Your task to perform on an android device: add a label to a message in the gmail app Image 0: 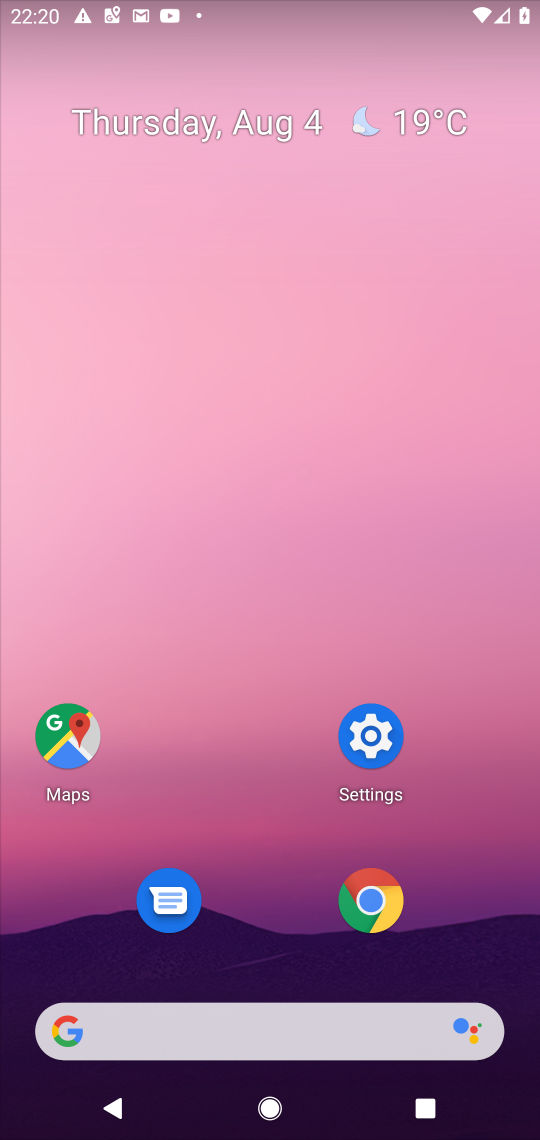
Step 0: press home button
Your task to perform on an android device: add a label to a message in the gmail app Image 1: 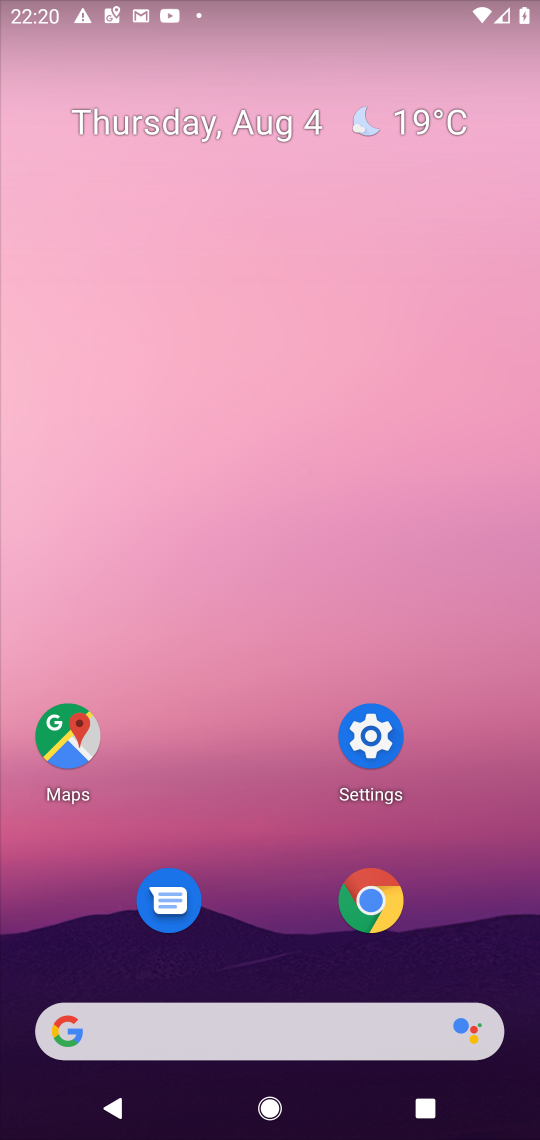
Step 1: drag from (329, 791) to (461, 73)
Your task to perform on an android device: add a label to a message in the gmail app Image 2: 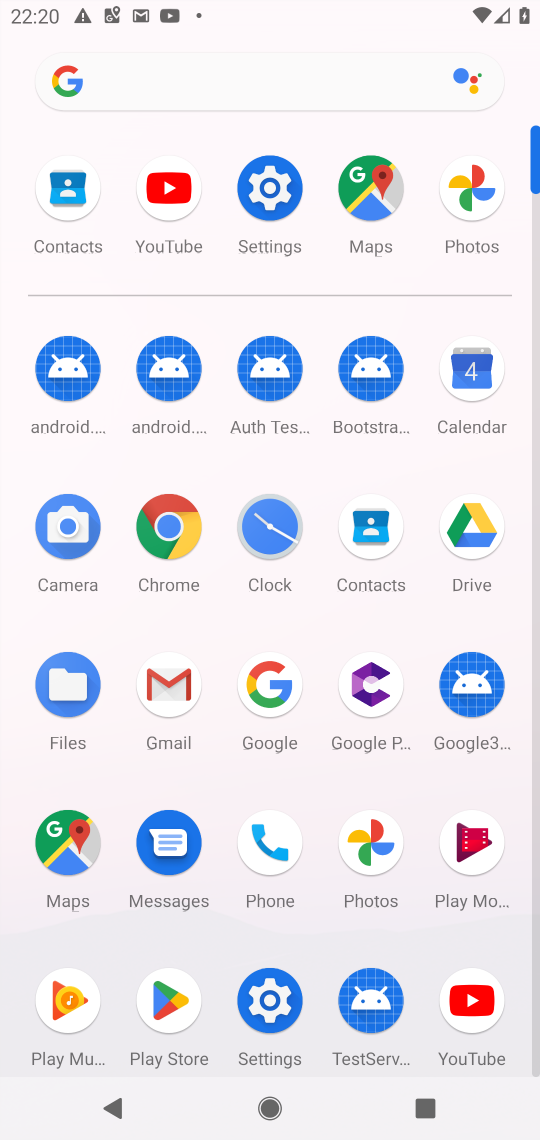
Step 2: click (177, 687)
Your task to perform on an android device: add a label to a message in the gmail app Image 3: 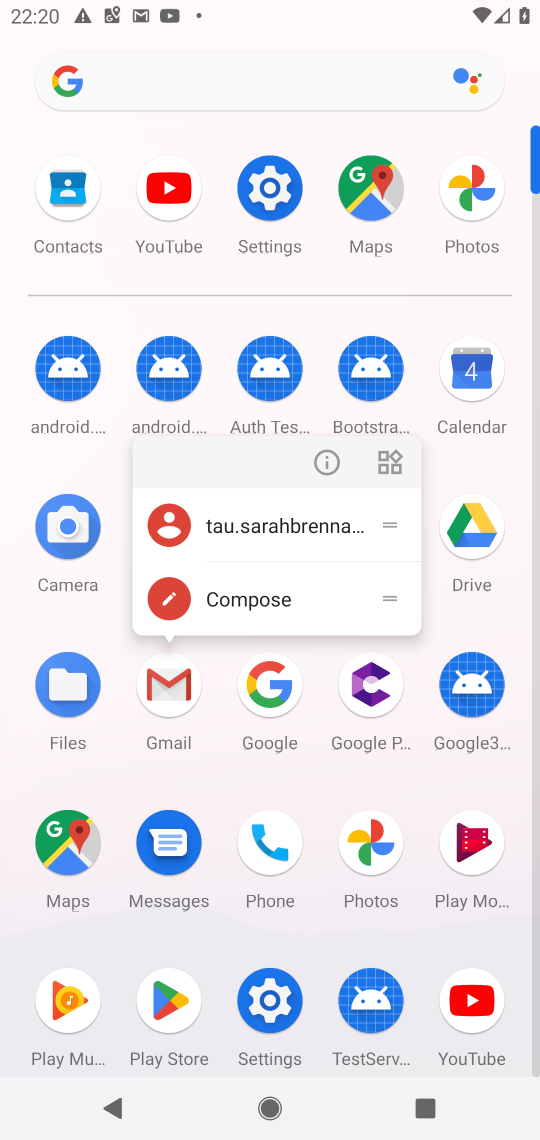
Step 3: click (177, 685)
Your task to perform on an android device: add a label to a message in the gmail app Image 4: 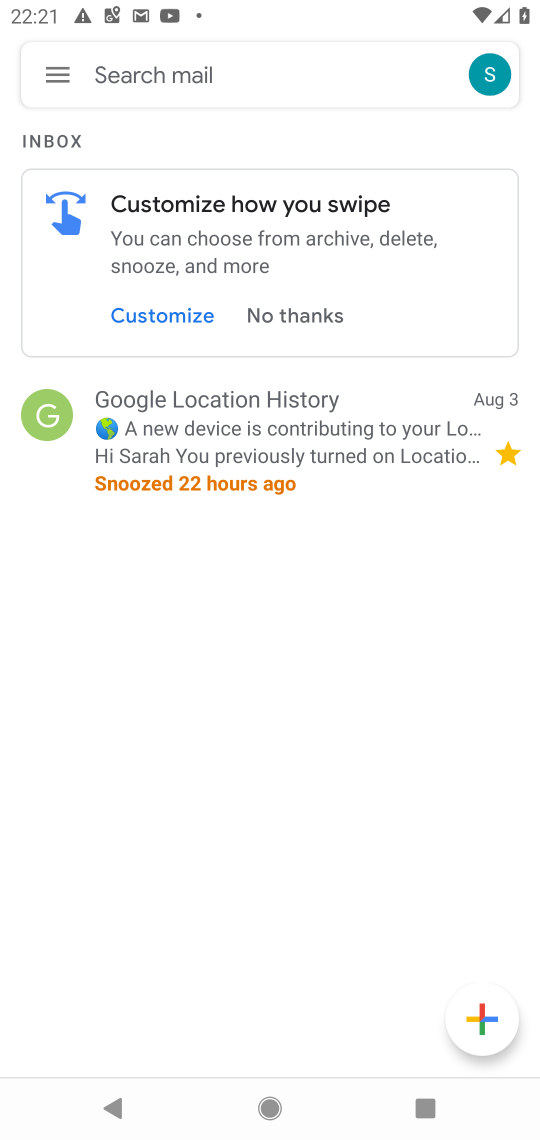
Step 4: click (237, 421)
Your task to perform on an android device: add a label to a message in the gmail app Image 5: 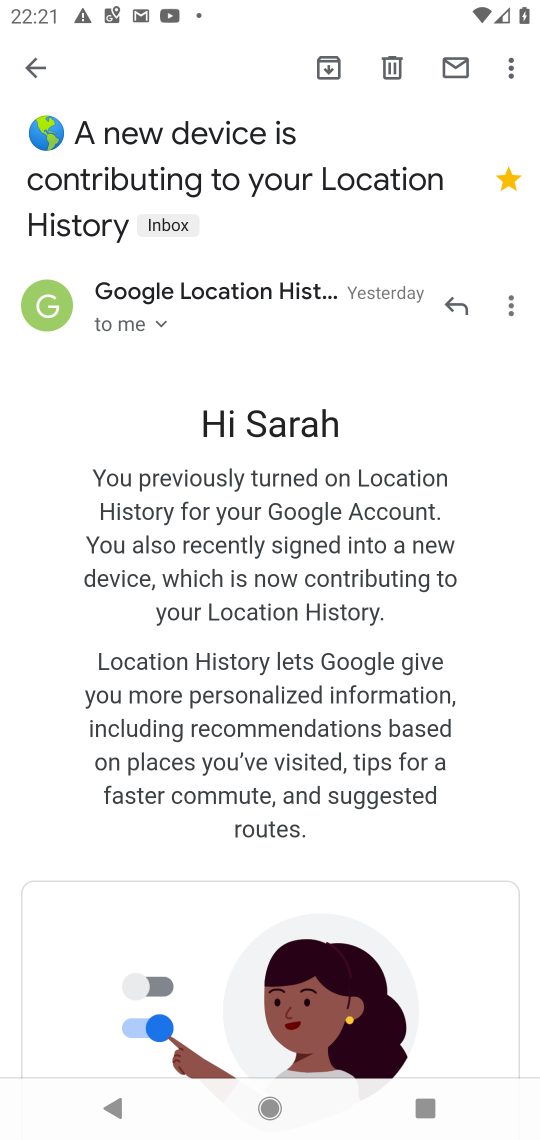
Step 5: click (172, 220)
Your task to perform on an android device: add a label to a message in the gmail app Image 6: 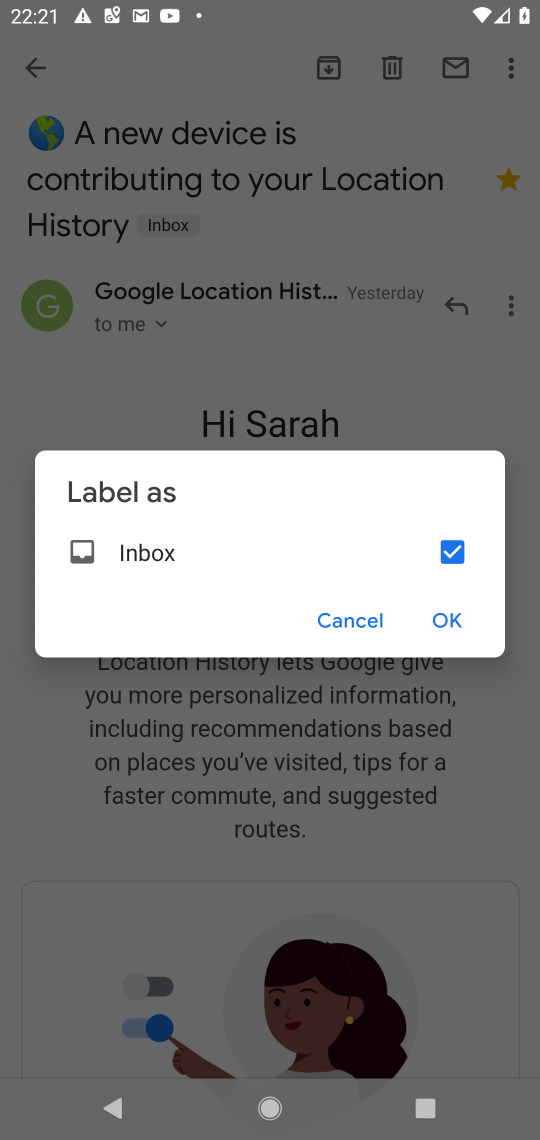
Step 6: click (465, 552)
Your task to perform on an android device: add a label to a message in the gmail app Image 7: 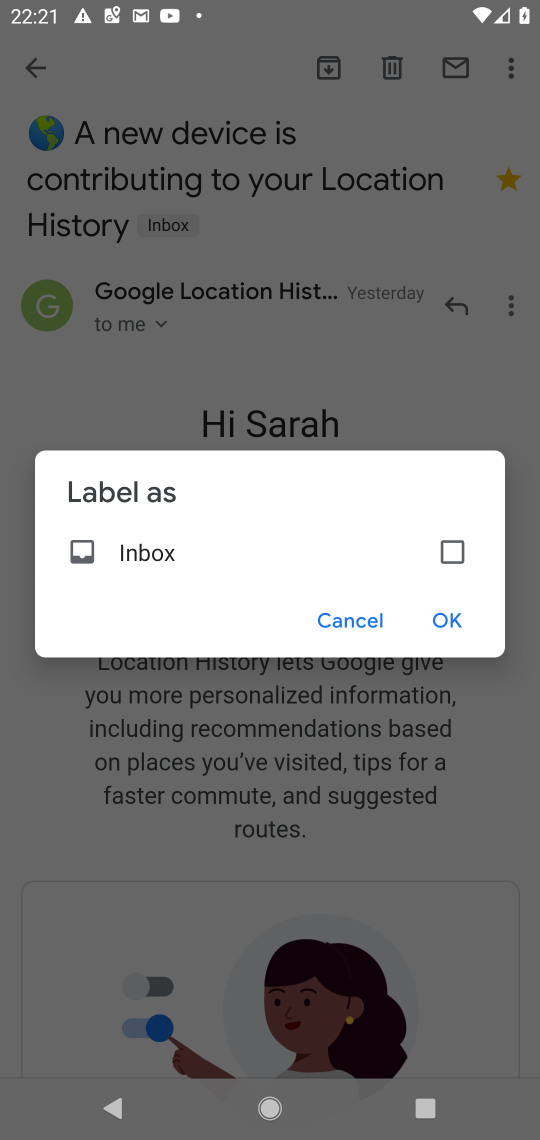
Step 7: click (443, 623)
Your task to perform on an android device: add a label to a message in the gmail app Image 8: 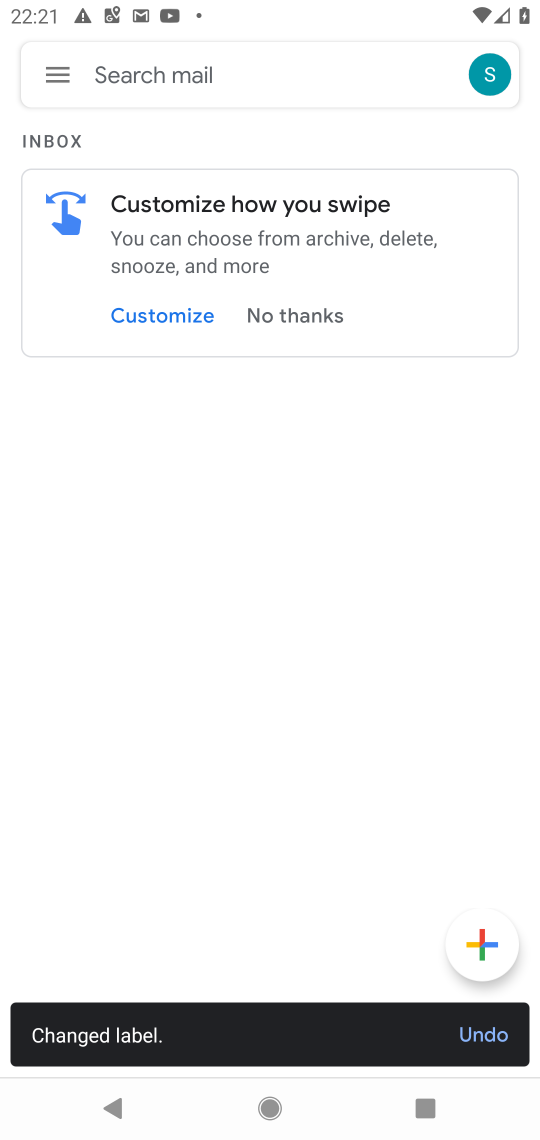
Step 8: task complete